Your task to perform on an android device: Open the web browser Image 0: 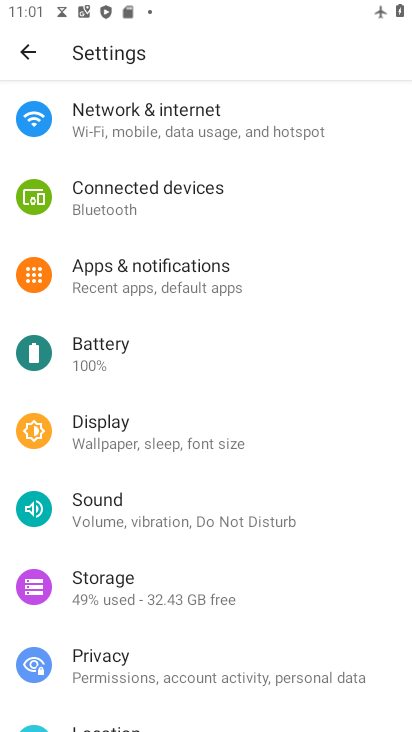
Step 0: press back button
Your task to perform on an android device: Open the web browser Image 1: 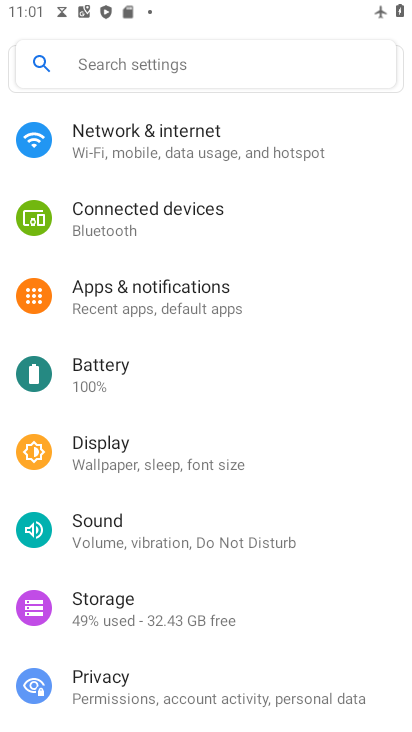
Step 1: press back button
Your task to perform on an android device: Open the web browser Image 2: 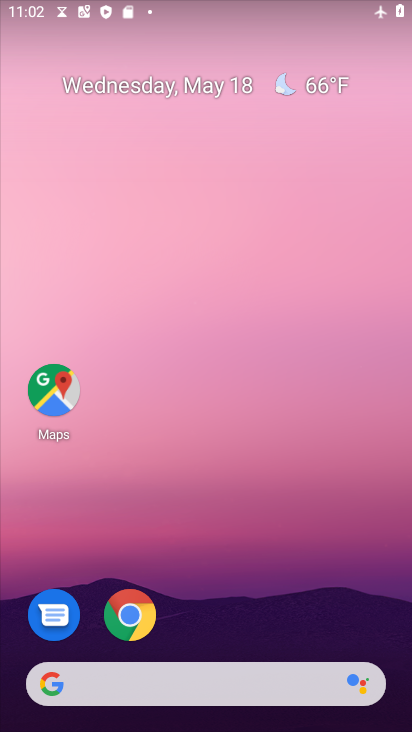
Step 2: drag from (257, 358) to (265, 52)
Your task to perform on an android device: Open the web browser Image 3: 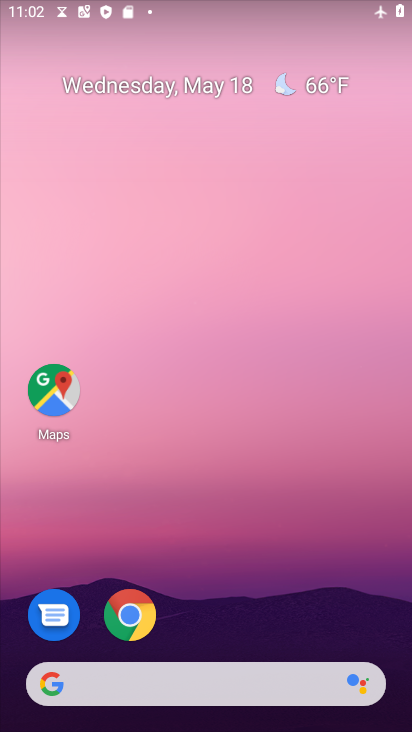
Step 3: drag from (299, 576) to (215, 8)
Your task to perform on an android device: Open the web browser Image 4: 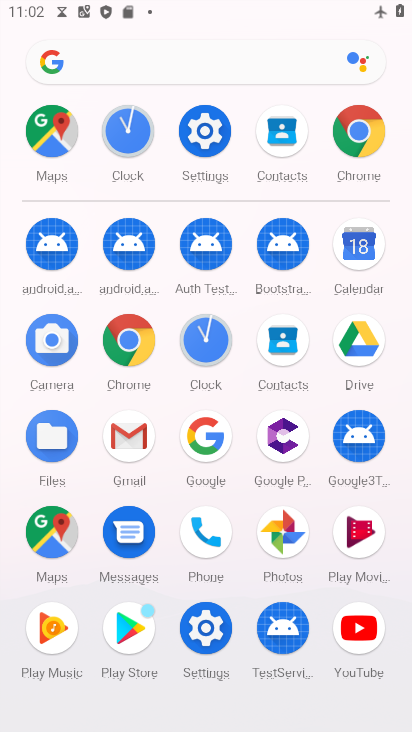
Step 4: click (131, 338)
Your task to perform on an android device: Open the web browser Image 5: 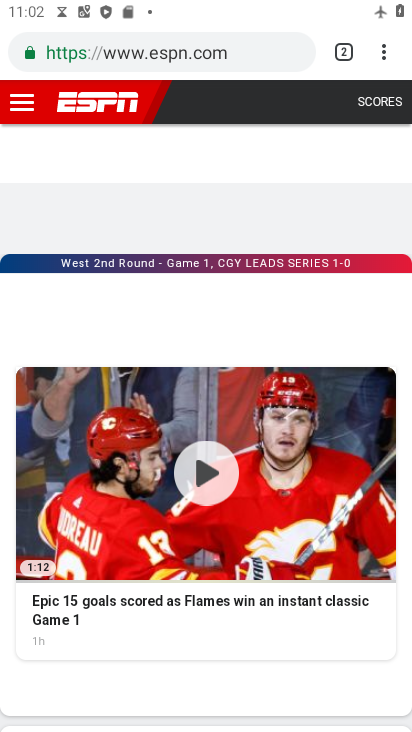
Step 5: task complete